Your task to perform on an android device: Open settings Image 0: 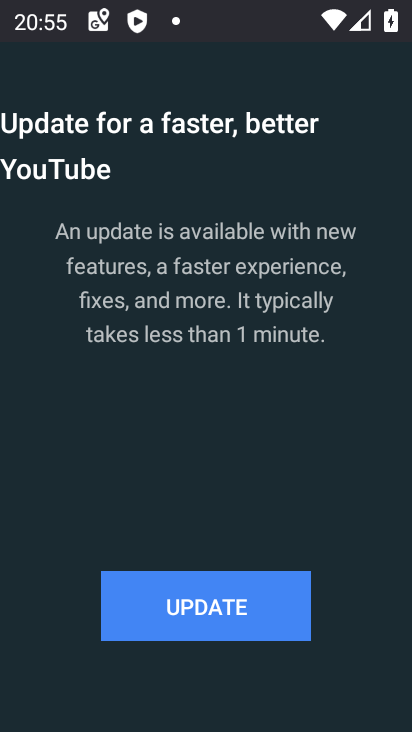
Step 0: press home button
Your task to perform on an android device: Open settings Image 1: 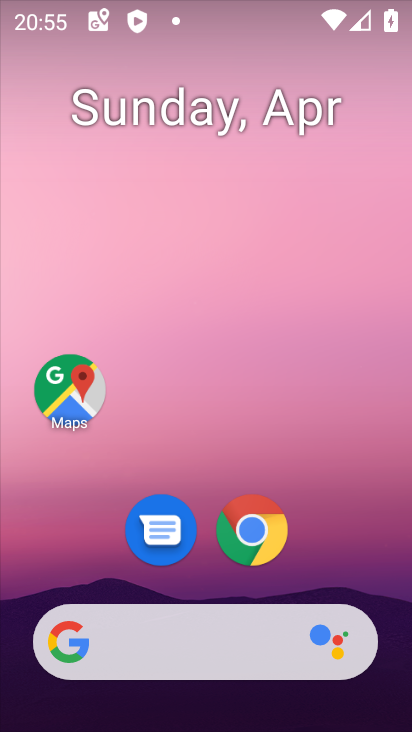
Step 1: drag from (212, 536) to (230, 76)
Your task to perform on an android device: Open settings Image 2: 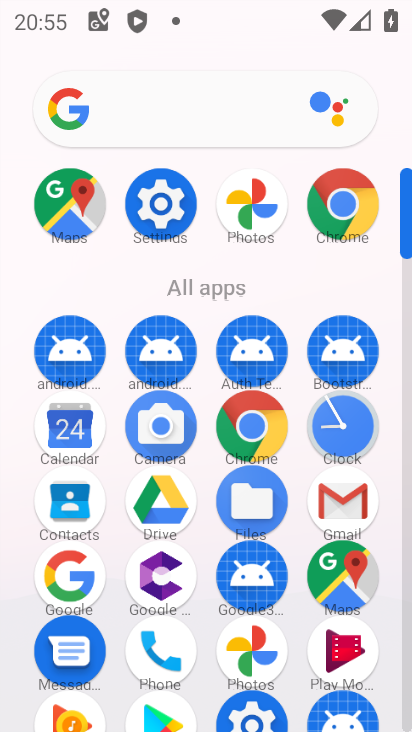
Step 2: click (160, 237)
Your task to perform on an android device: Open settings Image 3: 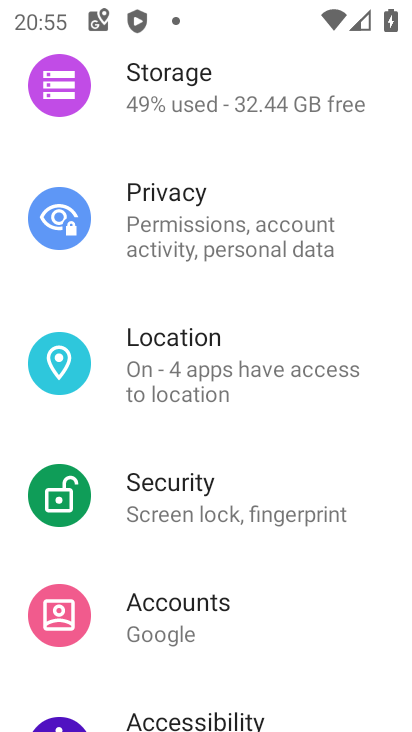
Step 3: task complete